Your task to perform on an android device: What's the weather going to be tomorrow? Image 0: 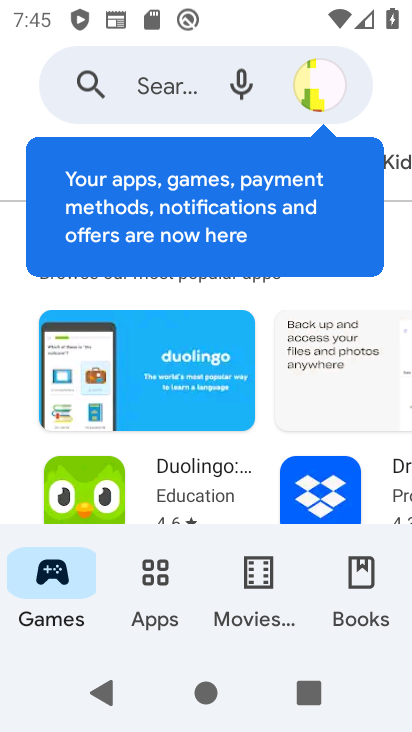
Step 0: press home button
Your task to perform on an android device: What's the weather going to be tomorrow? Image 1: 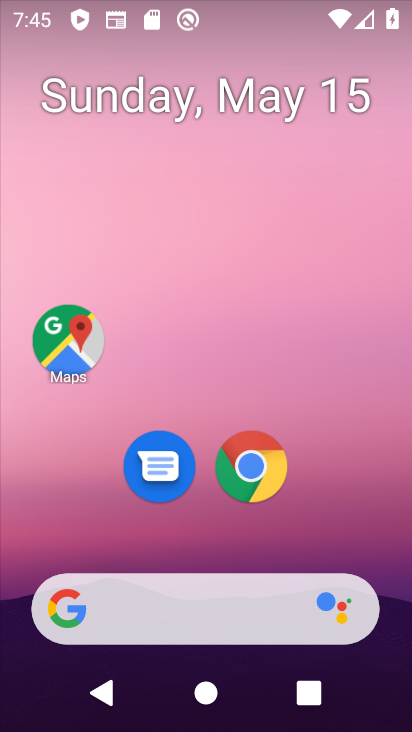
Step 1: drag from (217, 557) to (257, 22)
Your task to perform on an android device: What's the weather going to be tomorrow? Image 2: 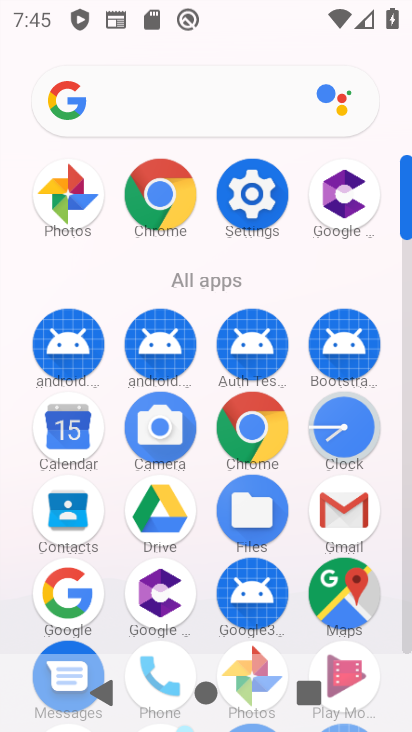
Step 2: drag from (203, 606) to (192, 353)
Your task to perform on an android device: What's the weather going to be tomorrow? Image 3: 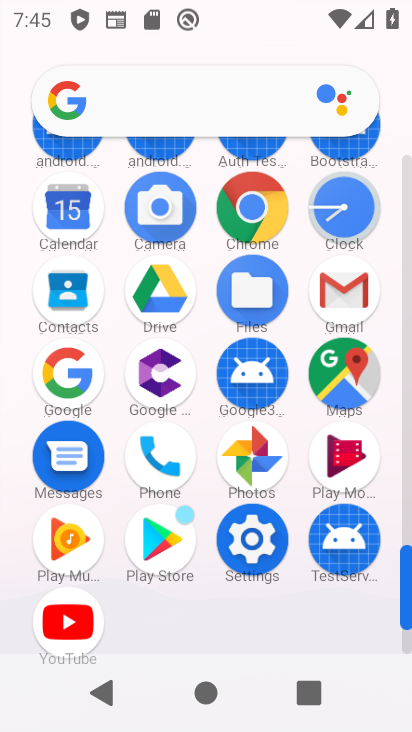
Step 3: click (82, 383)
Your task to perform on an android device: What's the weather going to be tomorrow? Image 4: 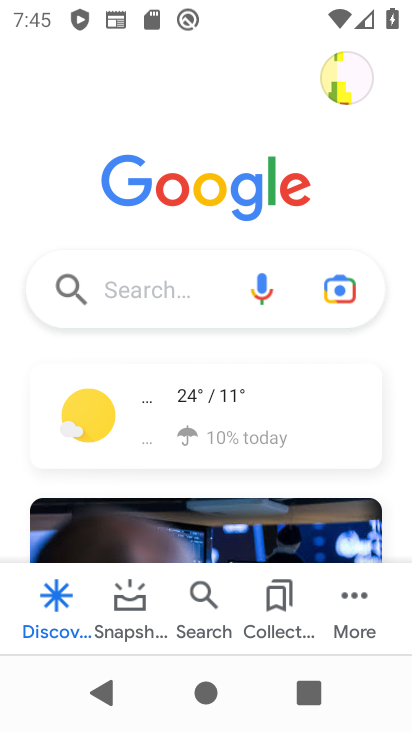
Step 4: click (143, 317)
Your task to perform on an android device: What's the weather going to be tomorrow? Image 5: 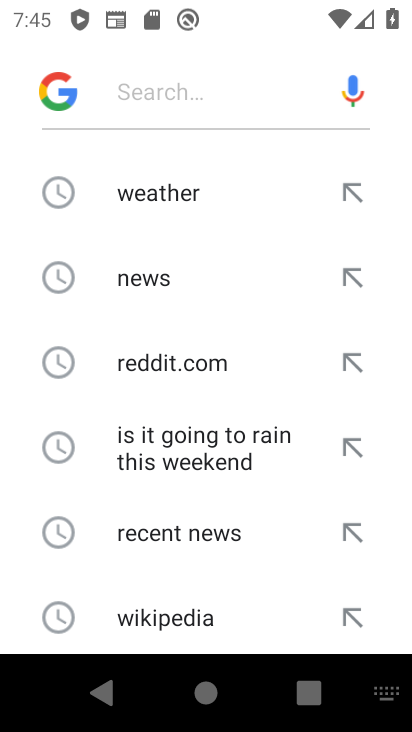
Step 5: click (90, 205)
Your task to perform on an android device: What's the weather going to be tomorrow? Image 6: 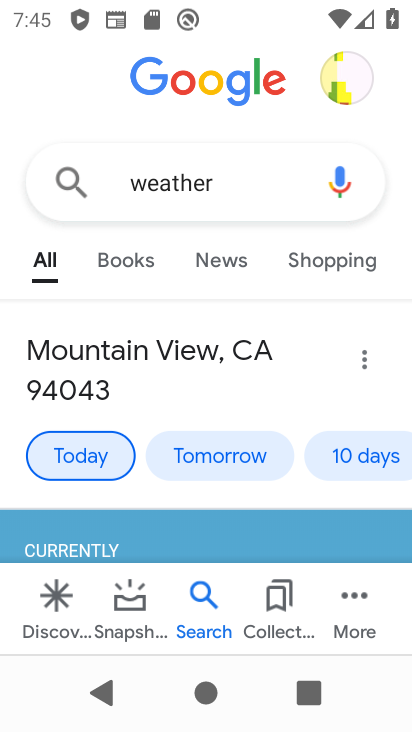
Step 6: task complete